Your task to perform on an android device: check storage Image 0: 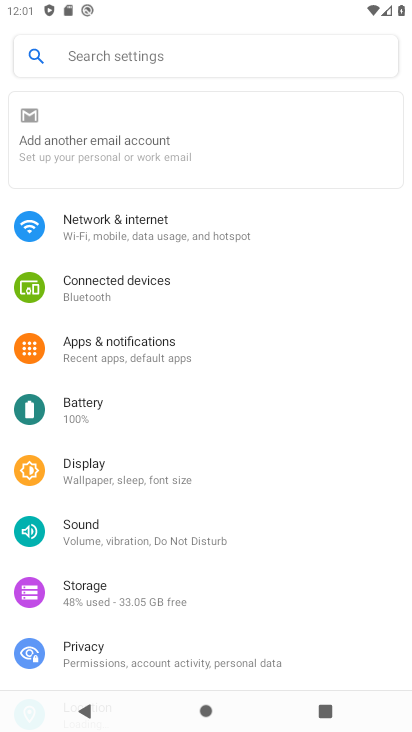
Step 0: press home button
Your task to perform on an android device: check storage Image 1: 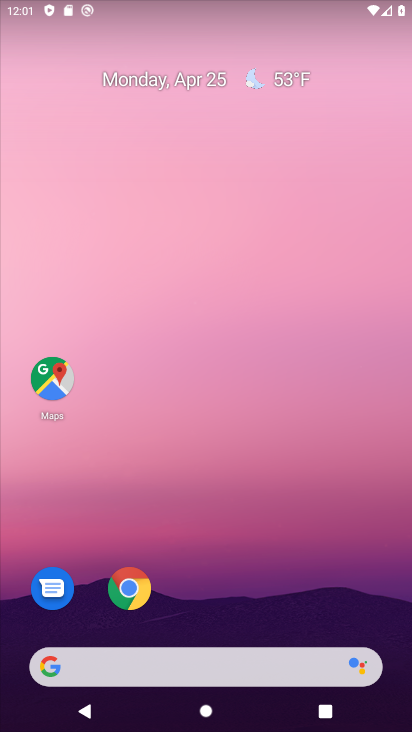
Step 1: drag from (286, 613) to (251, 74)
Your task to perform on an android device: check storage Image 2: 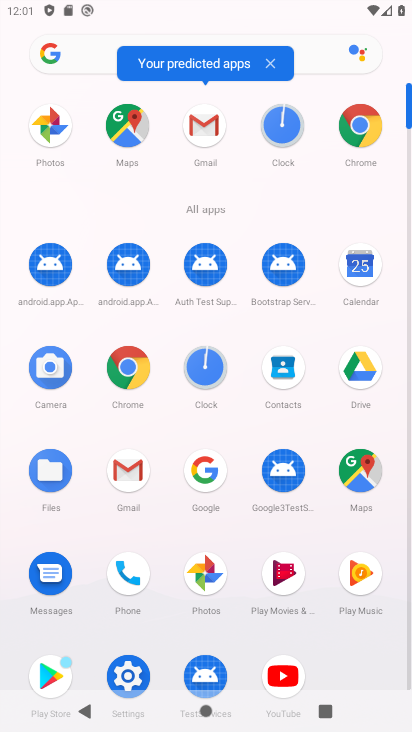
Step 2: click (140, 669)
Your task to perform on an android device: check storage Image 3: 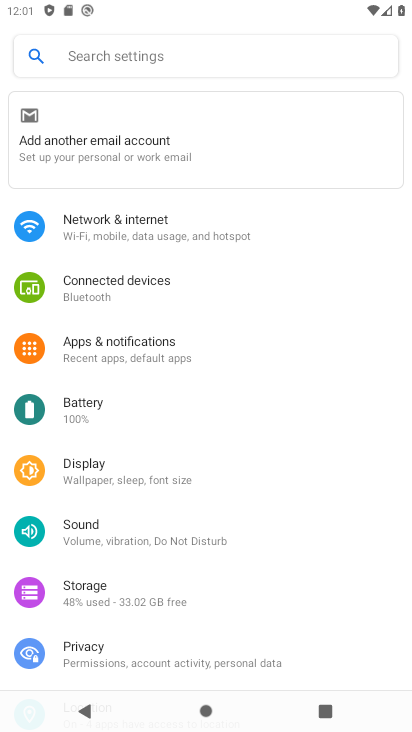
Step 3: click (156, 596)
Your task to perform on an android device: check storage Image 4: 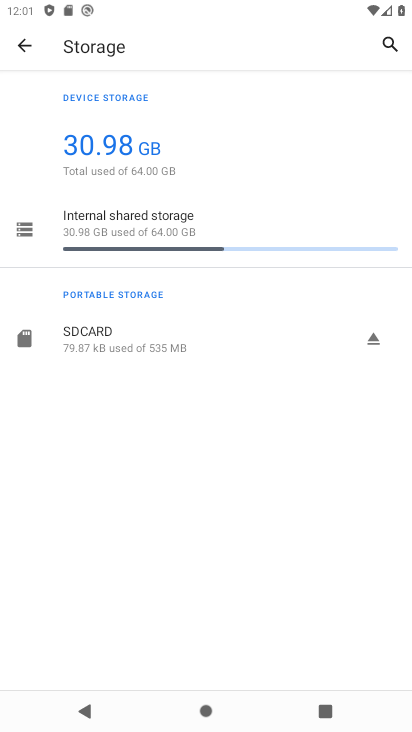
Step 4: task complete